Your task to perform on an android device: Open internet settings Image 0: 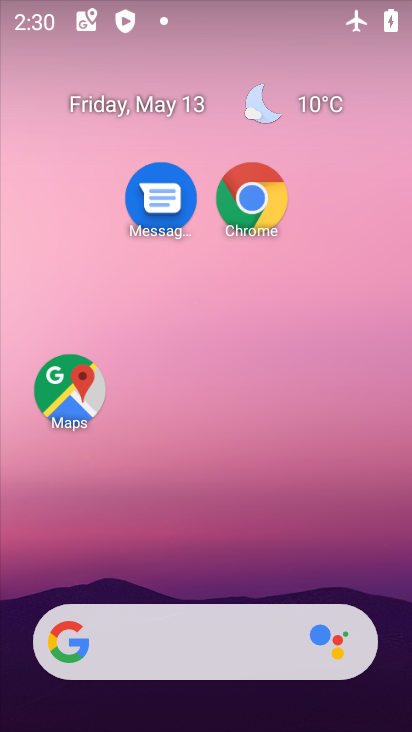
Step 0: drag from (191, 598) to (154, 0)
Your task to perform on an android device: Open internet settings Image 1: 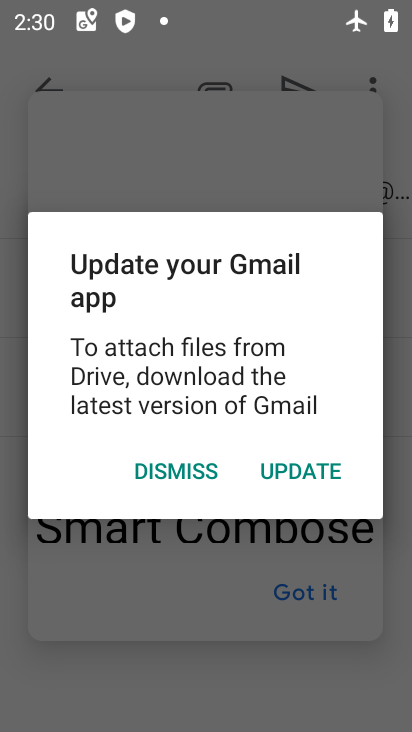
Step 1: click (346, 224)
Your task to perform on an android device: Open internet settings Image 2: 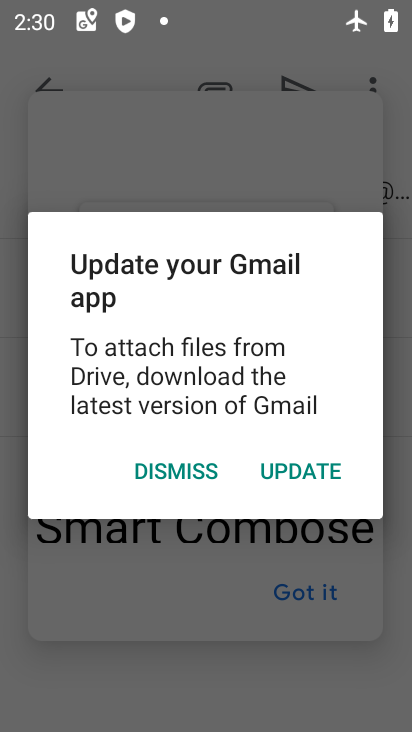
Step 2: click (189, 456)
Your task to perform on an android device: Open internet settings Image 3: 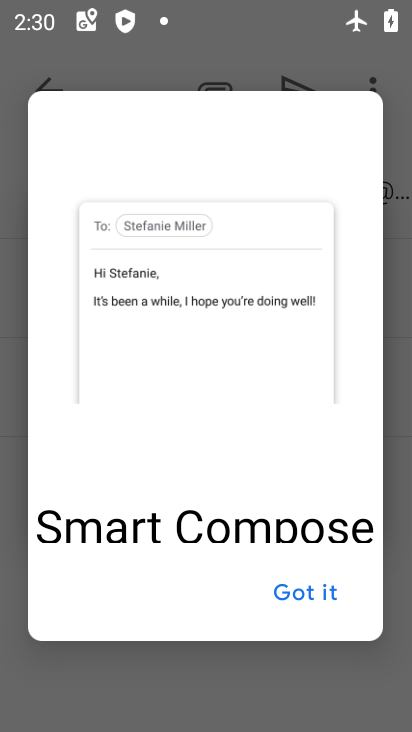
Step 3: click (297, 578)
Your task to perform on an android device: Open internet settings Image 4: 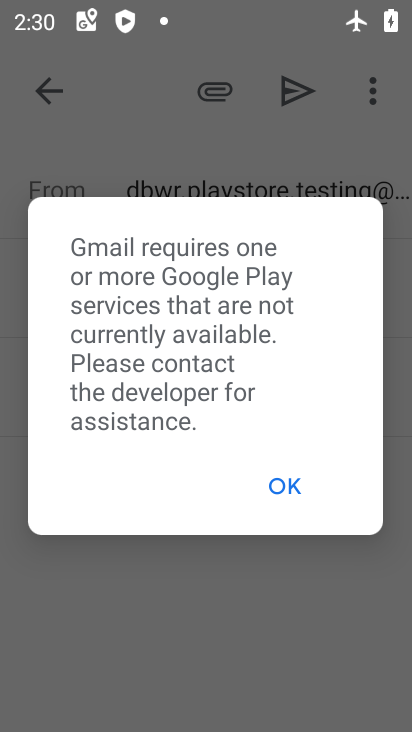
Step 4: press home button
Your task to perform on an android device: Open internet settings Image 5: 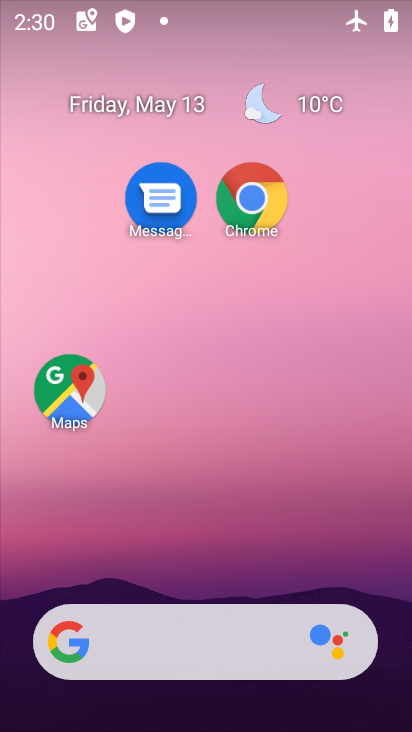
Step 5: drag from (235, 507) to (179, 14)
Your task to perform on an android device: Open internet settings Image 6: 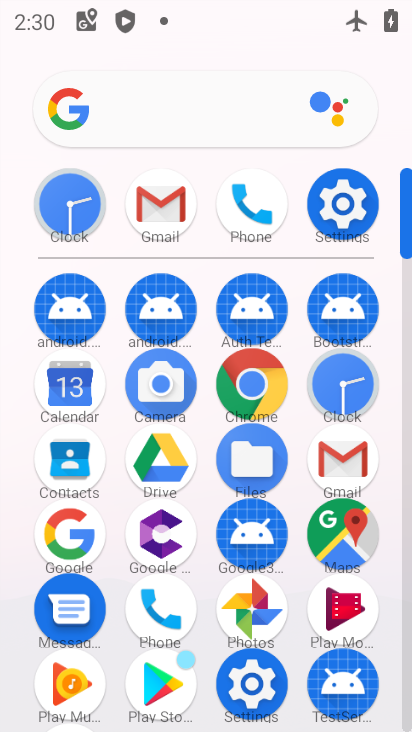
Step 6: click (338, 259)
Your task to perform on an android device: Open internet settings Image 7: 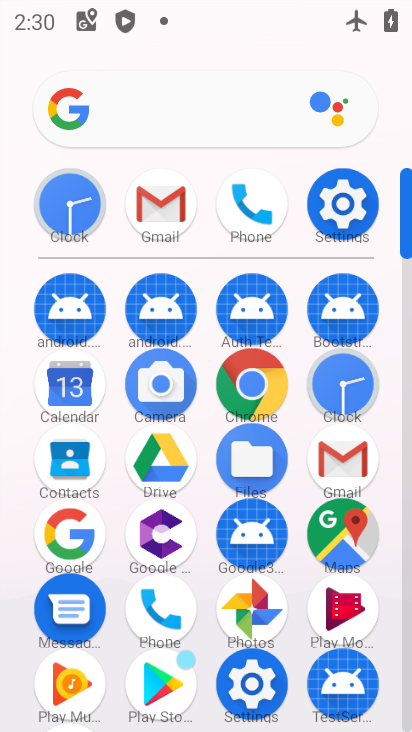
Step 7: click (337, 218)
Your task to perform on an android device: Open internet settings Image 8: 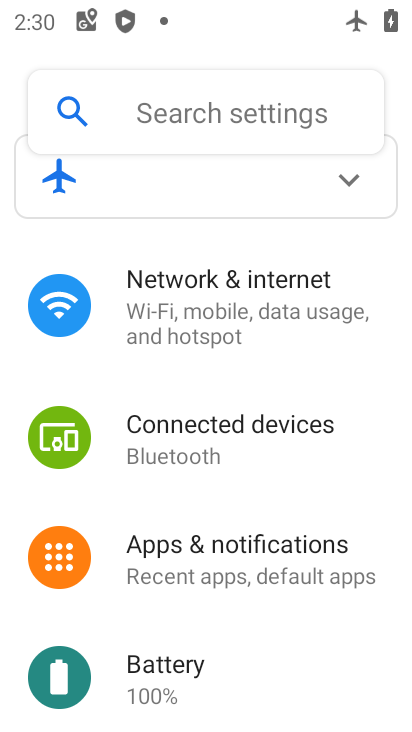
Step 8: click (281, 320)
Your task to perform on an android device: Open internet settings Image 9: 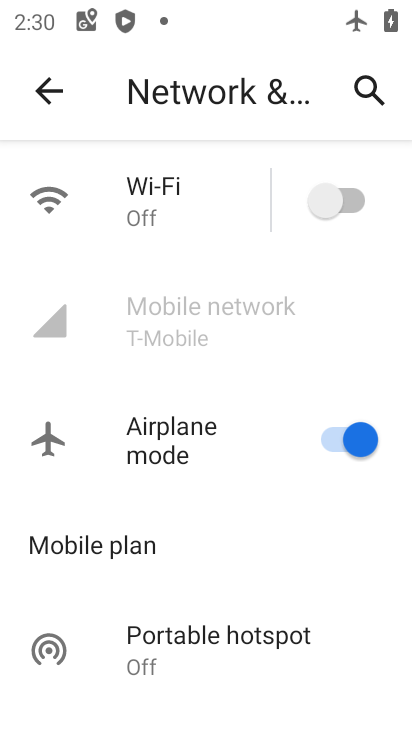
Step 9: task complete